Your task to perform on an android device: turn on notifications settings in the gmail app Image 0: 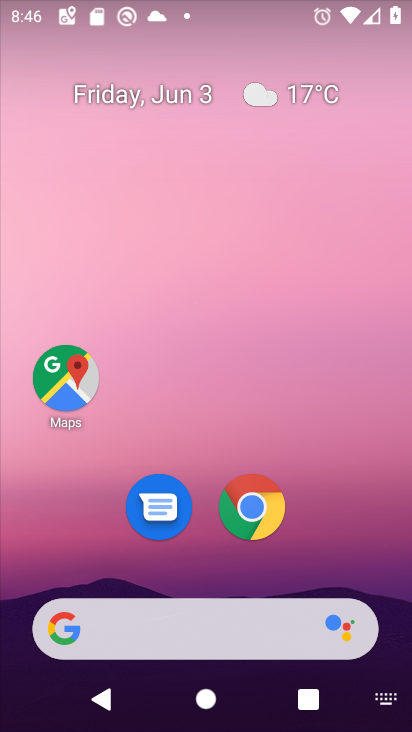
Step 0: drag from (360, 537) to (251, 5)
Your task to perform on an android device: turn on notifications settings in the gmail app Image 1: 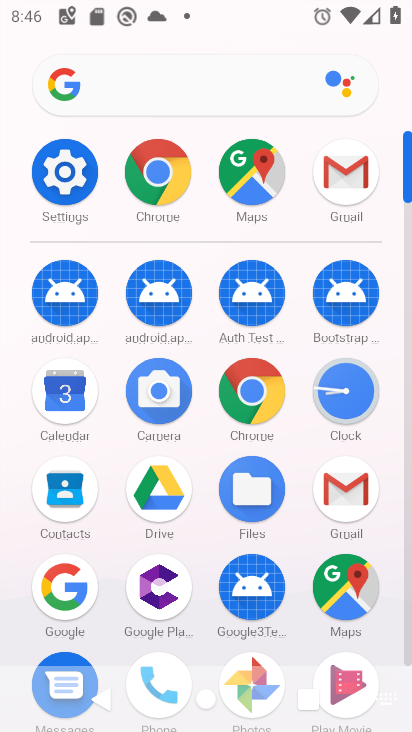
Step 1: click (361, 483)
Your task to perform on an android device: turn on notifications settings in the gmail app Image 2: 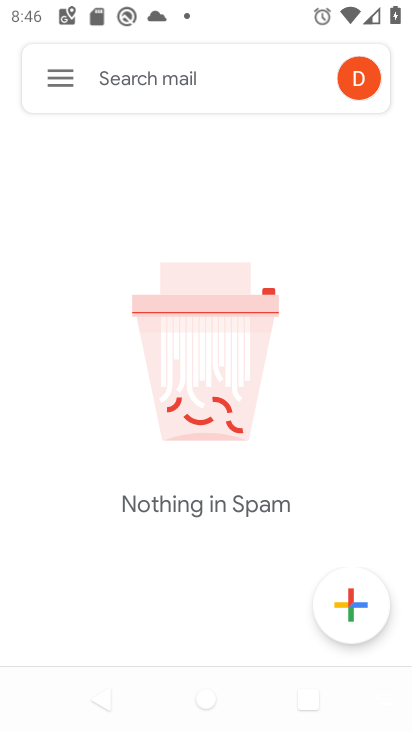
Step 2: click (57, 85)
Your task to perform on an android device: turn on notifications settings in the gmail app Image 3: 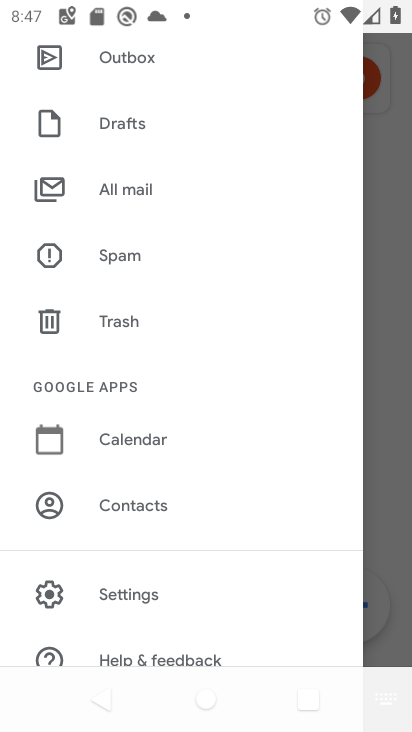
Step 3: click (154, 605)
Your task to perform on an android device: turn on notifications settings in the gmail app Image 4: 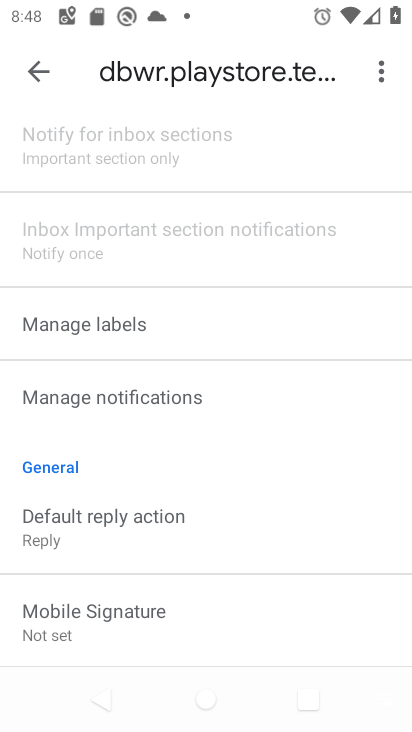
Step 4: click (225, 386)
Your task to perform on an android device: turn on notifications settings in the gmail app Image 5: 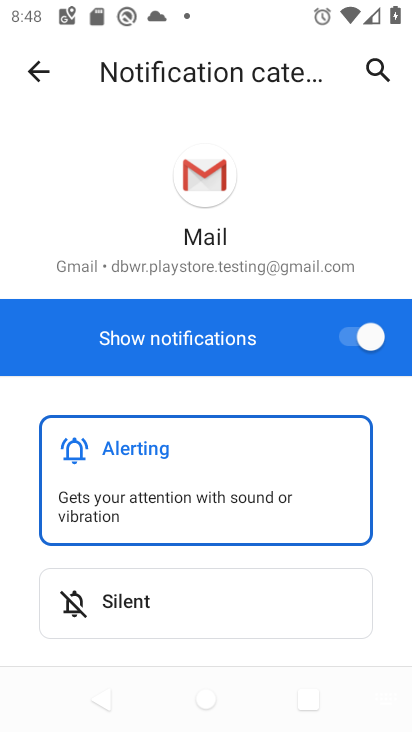
Step 5: task complete